Your task to perform on an android device: Set the phone to "Do not disturb". Image 0: 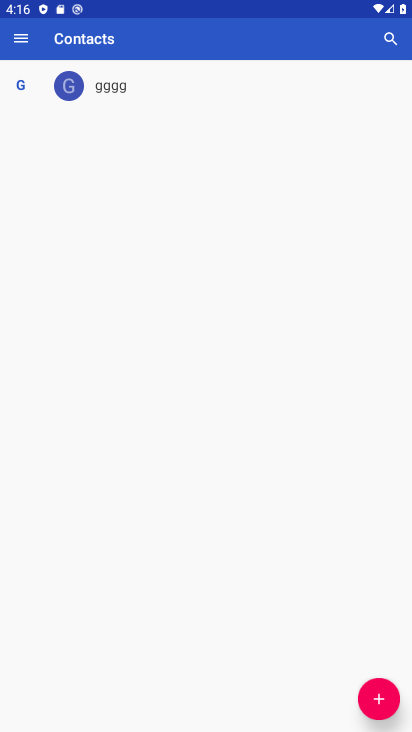
Step 0: press home button
Your task to perform on an android device: Set the phone to "Do not disturb". Image 1: 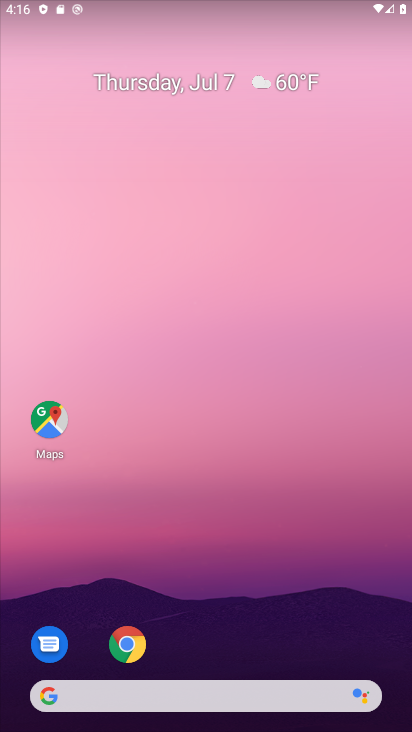
Step 1: drag from (252, 583) to (175, 45)
Your task to perform on an android device: Set the phone to "Do not disturb". Image 2: 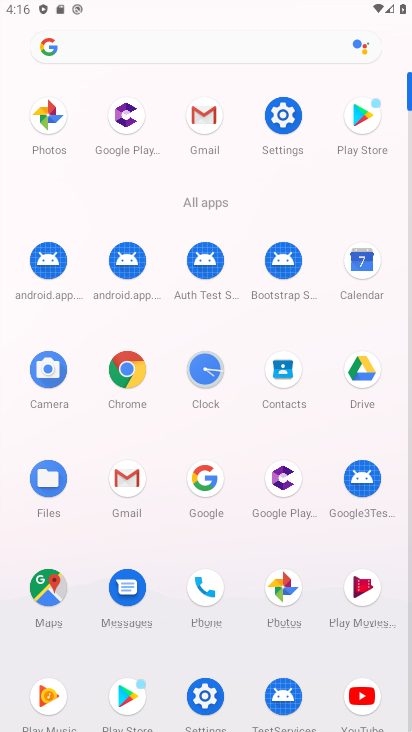
Step 2: click (280, 116)
Your task to perform on an android device: Set the phone to "Do not disturb". Image 3: 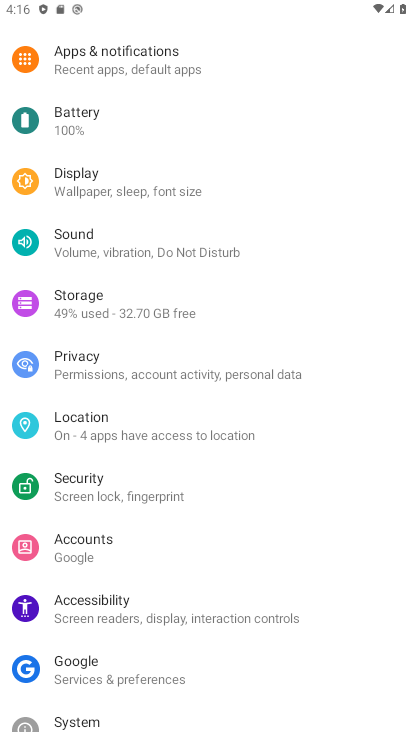
Step 3: click (153, 250)
Your task to perform on an android device: Set the phone to "Do not disturb". Image 4: 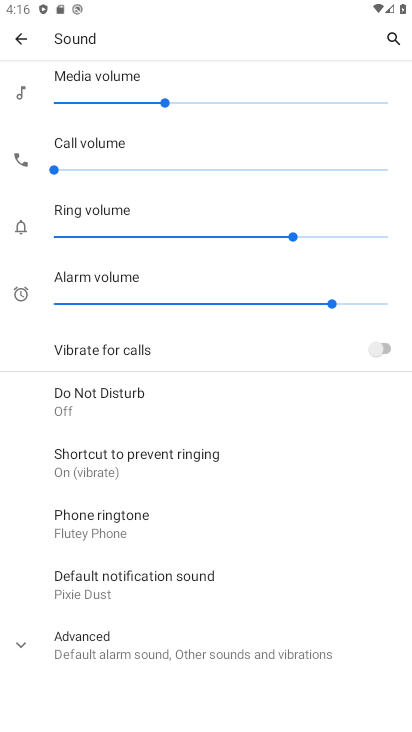
Step 4: click (176, 402)
Your task to perform on an android device: Set the phone to "Do not disturb". Image 5: 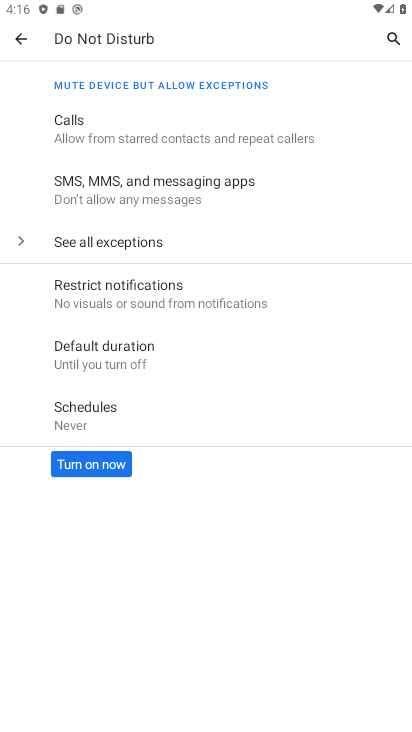
Step 5: click (101, 454)
Your task to perform on an android device: Set the phone to "Do not disturb". Image 6: 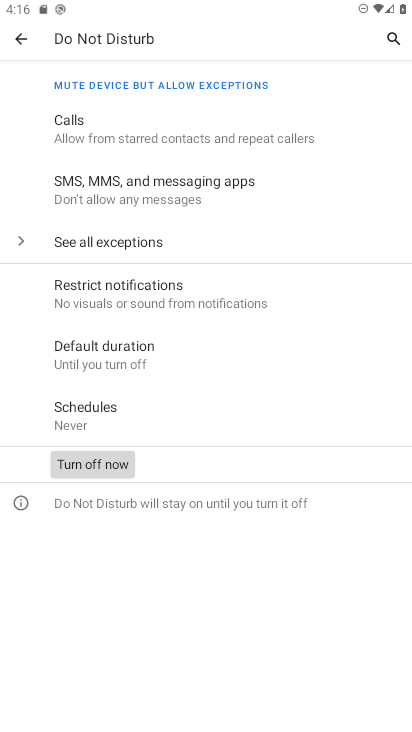
Step 6: task complete